Your task to perform on an android device: Go to location settings Image 0: 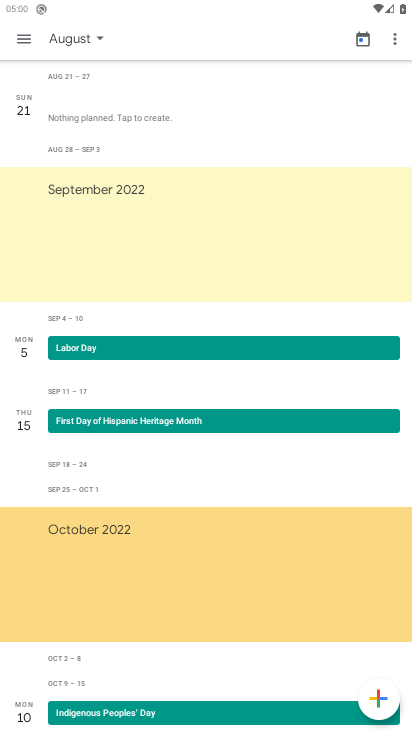
Step 0: press home button
Your task to perform on an android device: Go to location settings Image 1: 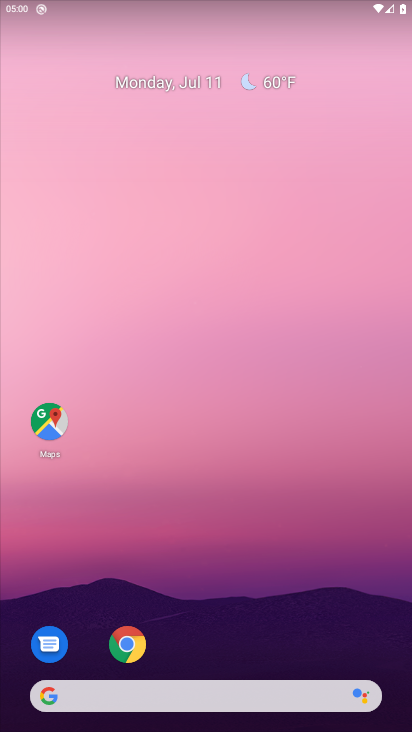
Step 1: drag from (234, 608) to (225, 381)
Your task to perform on an android device: Go to location settings Image 2: 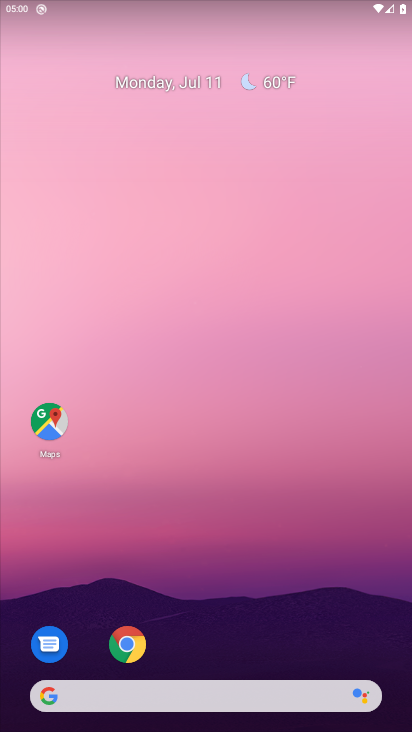
Step 2: drag from (299, 666) to (288, 277)
Your task to perform on an android device: Go to location settings Image 3: 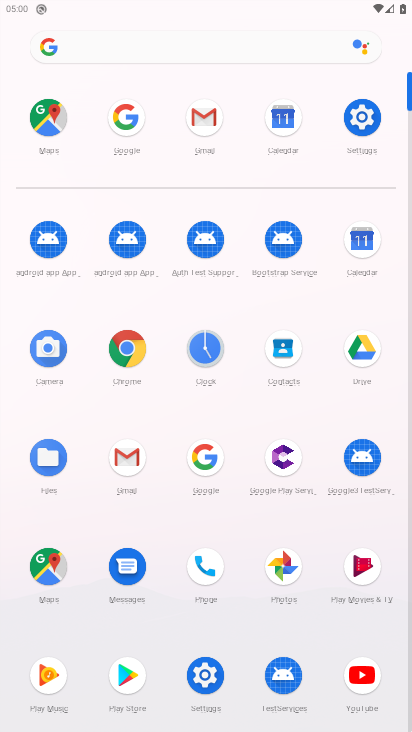
Step 3: click (360, 122)
Your task to perform on an android device: Go to location settings Image 4: 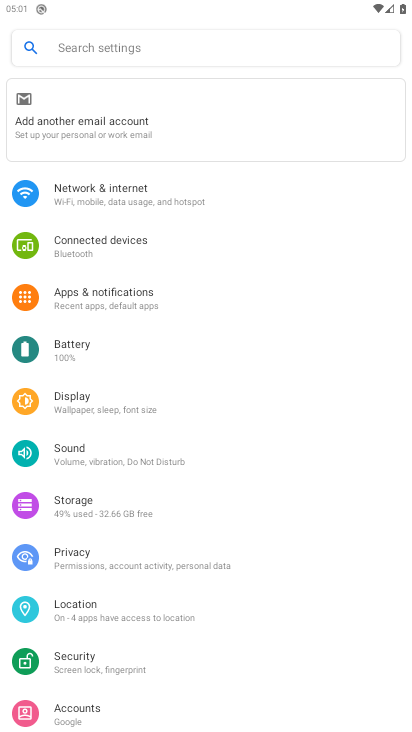
Step 4: click (84, 611)
Your task to perform on an android device: Go to location settings Image 5: 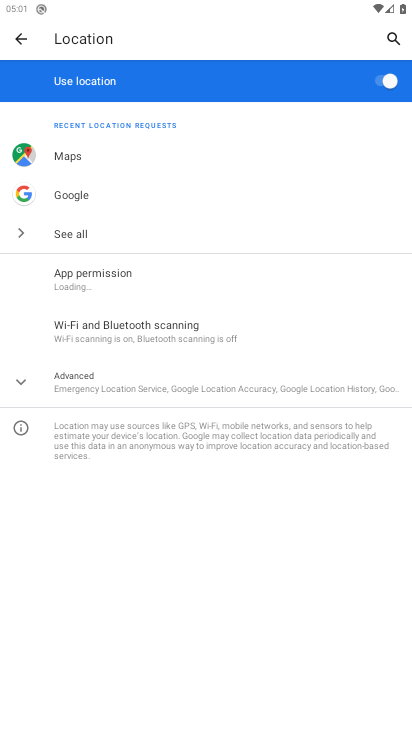
Step 5: click (121, 377)
Your task to perform on an android device: Go to location settings Image 6: 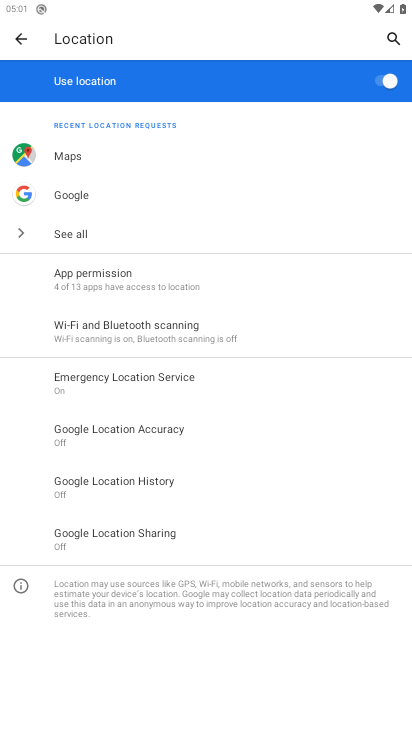
Step 6: task complete